Your task to perform on an android device: Open the map Image 0: 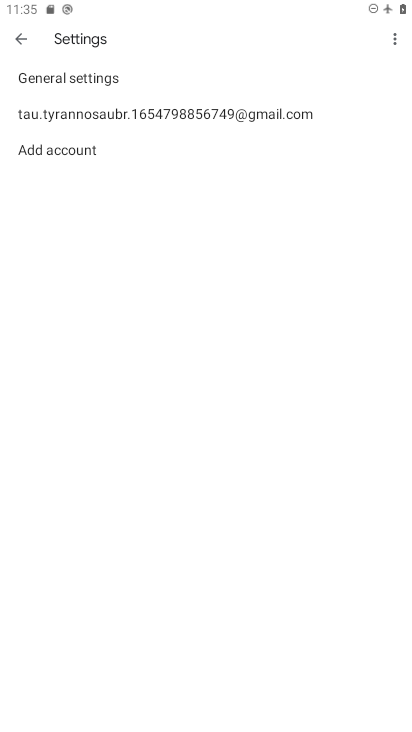
Step 0: press home button
Your task to perform on an android device: Open the map Image 1: 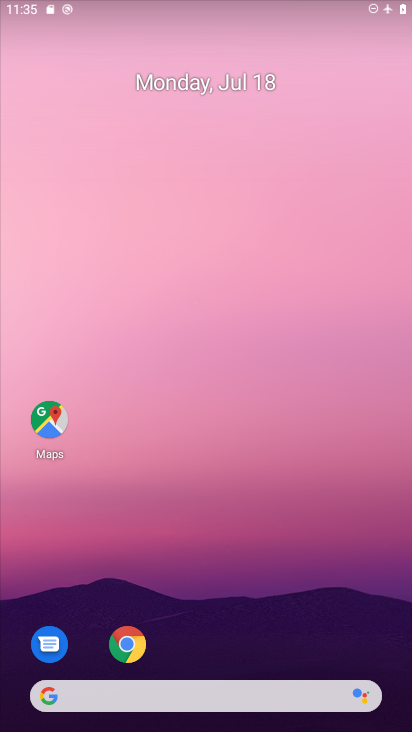
Step 1: drag from (193, 676) to (187, 170)
Your task to perform on an android device: Open the map Image 2: 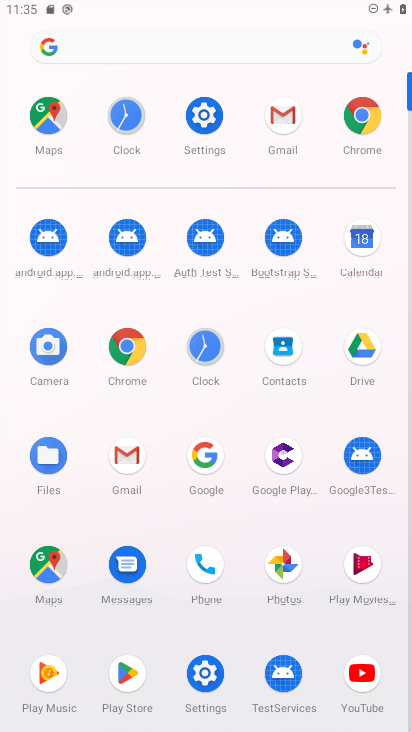
Step 2: click (42, 563)
Your task to perform on an android device: Open the map Image 3: 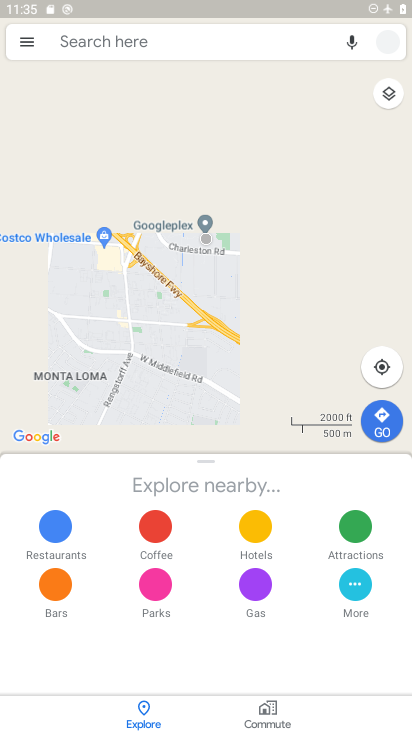
Step 3: task complete